Your task to perform on an android device: See recent photos Image 0: 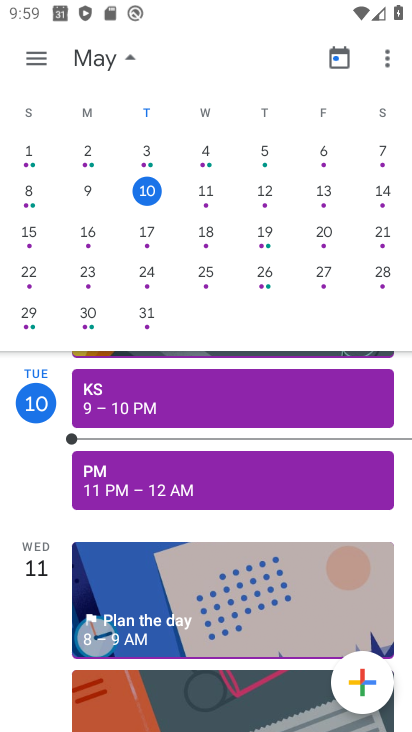
Step 0: press home button
Your task to perform on an android device: See recent photos Image 1: 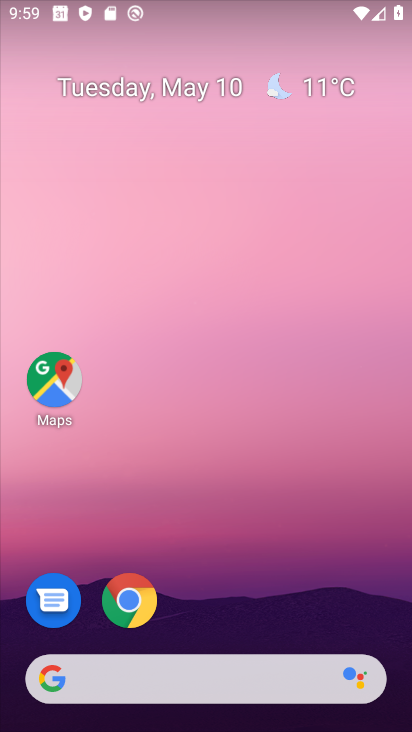
Step 1: drag from (272, 583) to (266, 1)
Your task to perform on an android device: See recent photos Image 2: 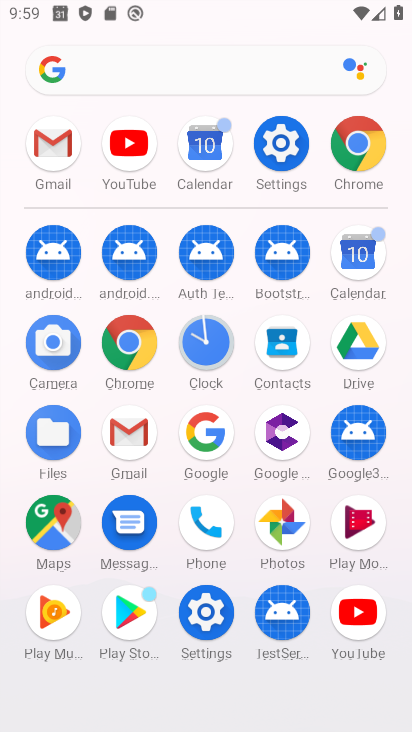
Step 2: click (278, 532)
Your task to perform on an android device: See recent photos Image 3: 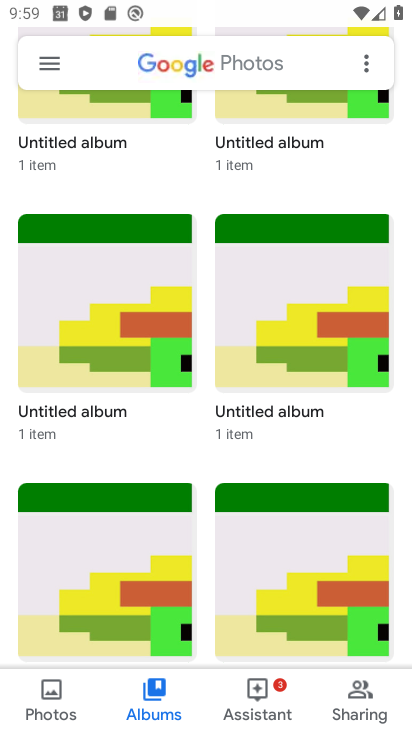
Step 3: drag from (173, 257) to (211, 707)
Your task to perform on an android device: See recent photos Image 4: 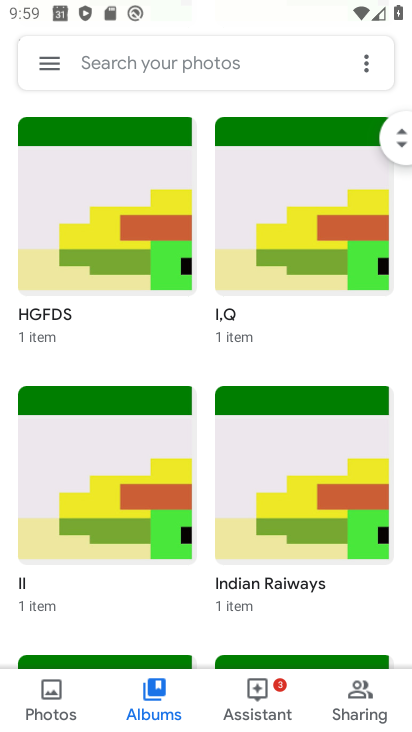
Step 4: click (38, 717)
Your task to perform on an android device: See recent photos Image 5: 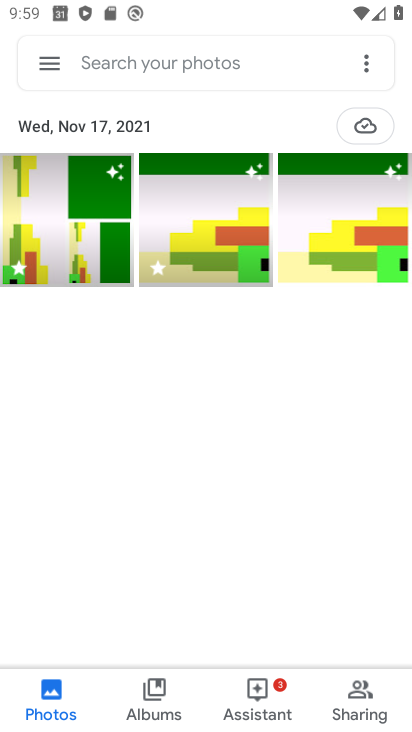
Step 5: click (52, 244)
Your task to perform on an android device: See recent photos Image 6: 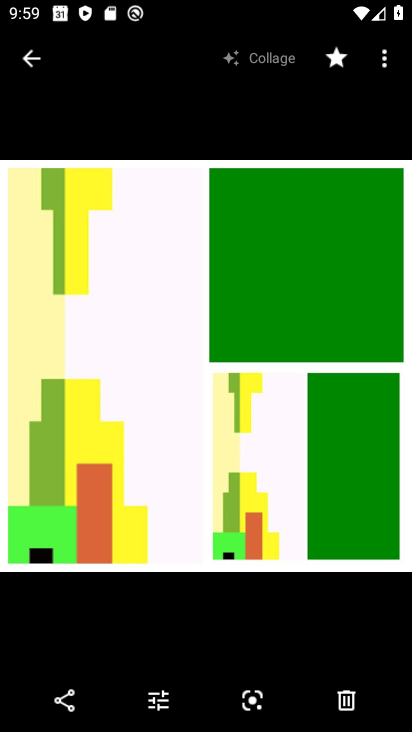
Step 6: task complete